Your task to perform on an android device: toggle translation in the chrome app Image 0: 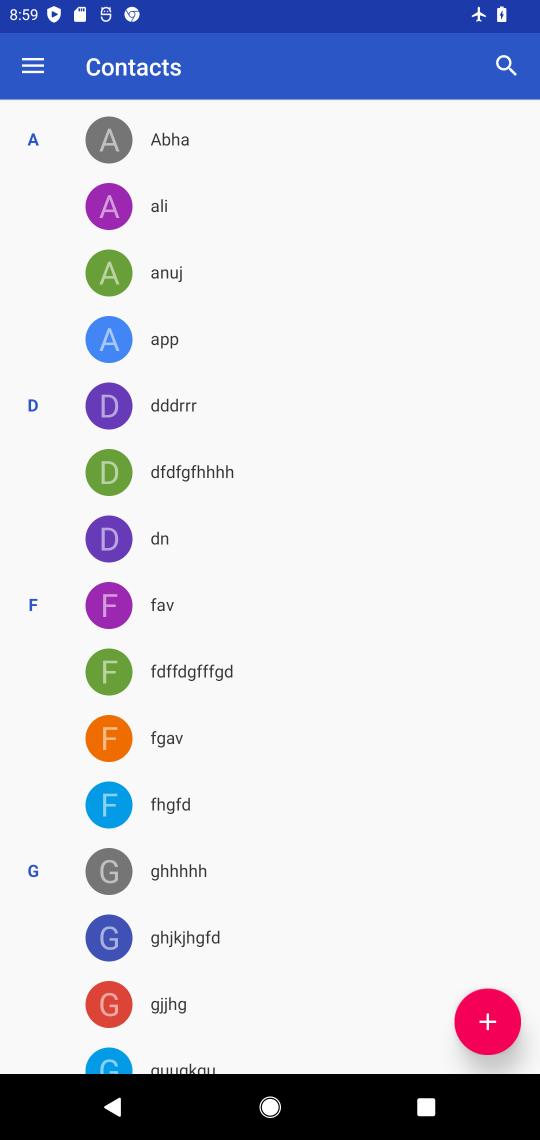
Step 0: press home button
Your task to perform on an android device: toggle translation in the chrome app Image 1: 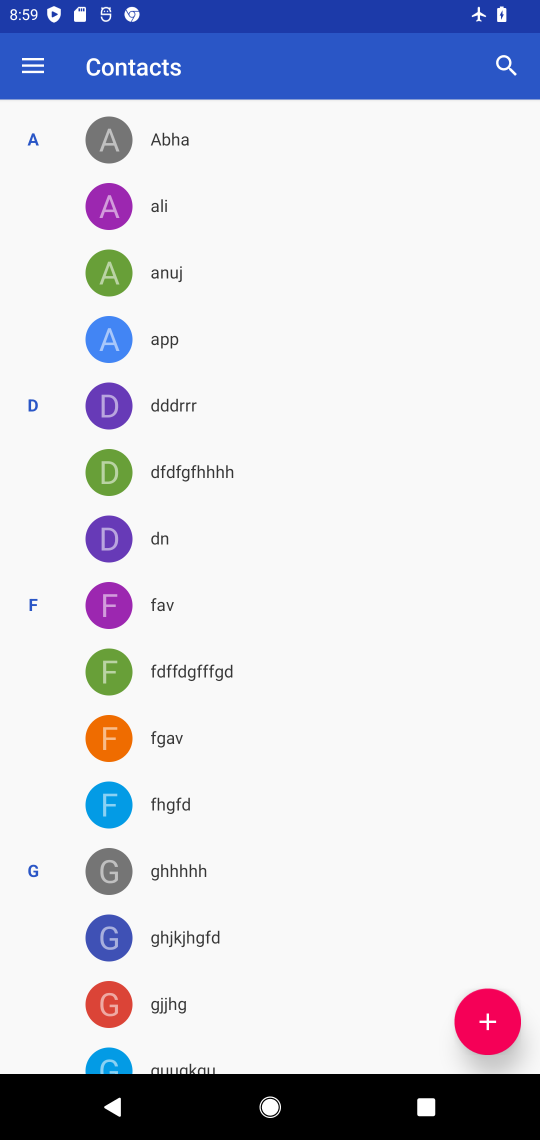
Step 1: press home button
Your task to perform on an android device: toggle translation in the chrome app Image 2: 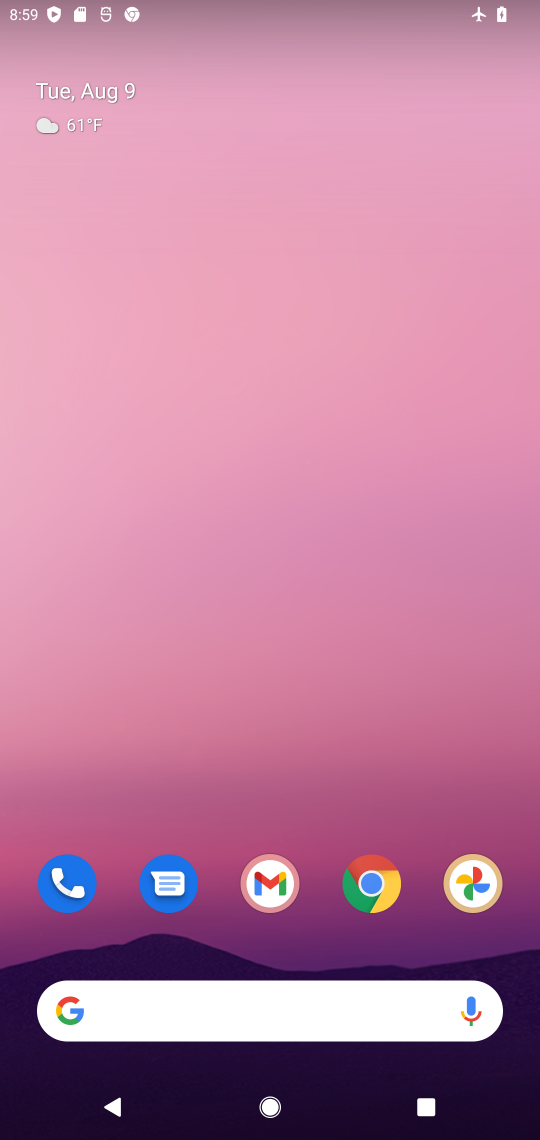
Step 2: drag from (400, 755) to (396, 217)
Your task to perform on an android device: toggle translation in the chrome app Image 3: 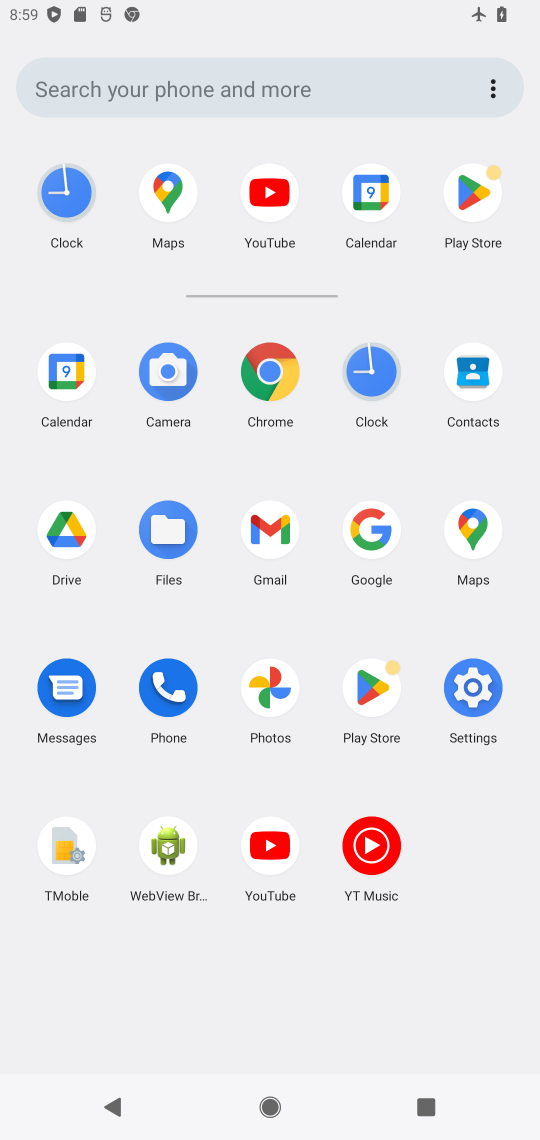
Step 3: click (270, 374)
Your task to perform on an android device: toggle translation in the chrome app Image 4: 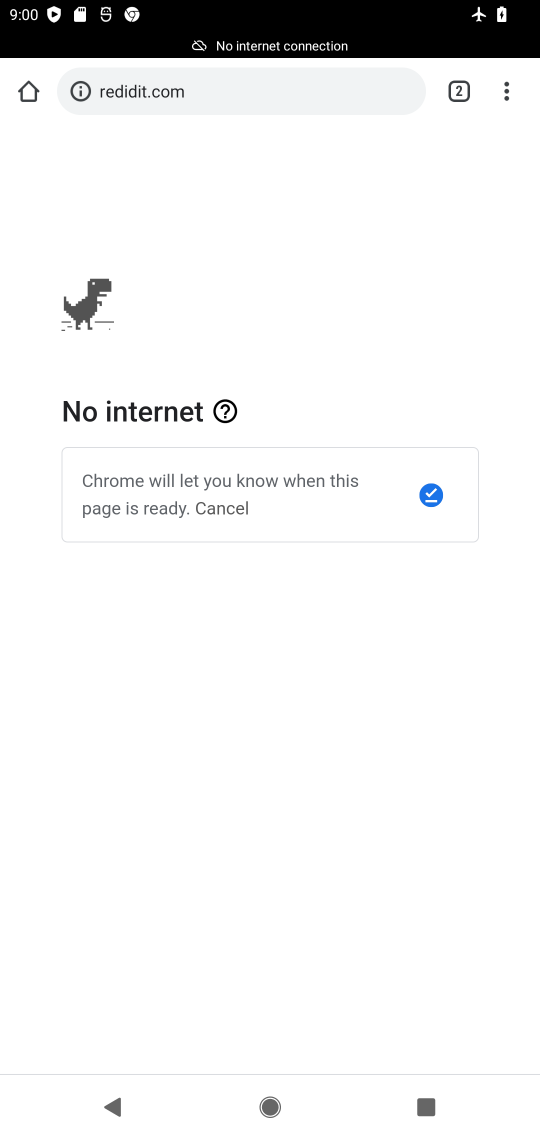
Step 4: drag from (496, 72) to (369, 842)
Your task to perform on an android device: toggle translation in the chrome app Image 5: 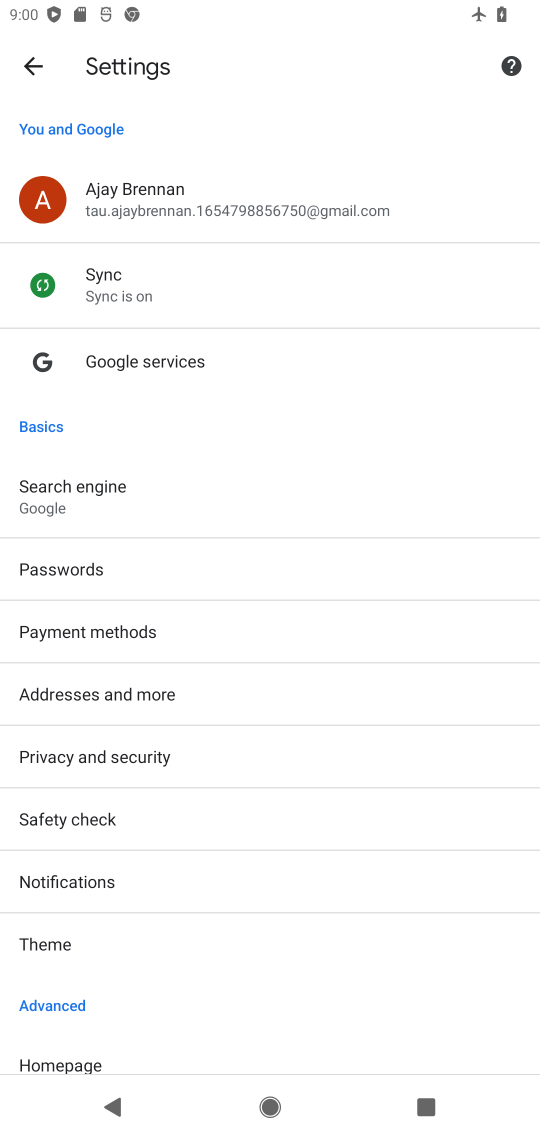
Step 5: drag from (181, 958) to (180, 408)
Your task to perform on an android device: toggle translation in the chrome app Image 6: 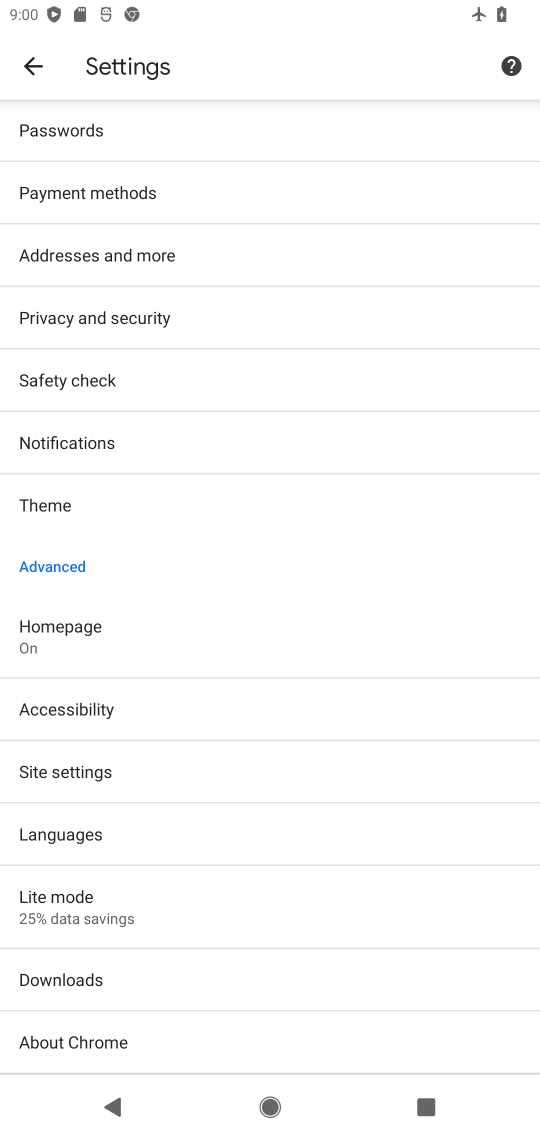
Step 6: click (91, 836)
Your task to perform on an android device: toggle translation in the chrome app Image 7: 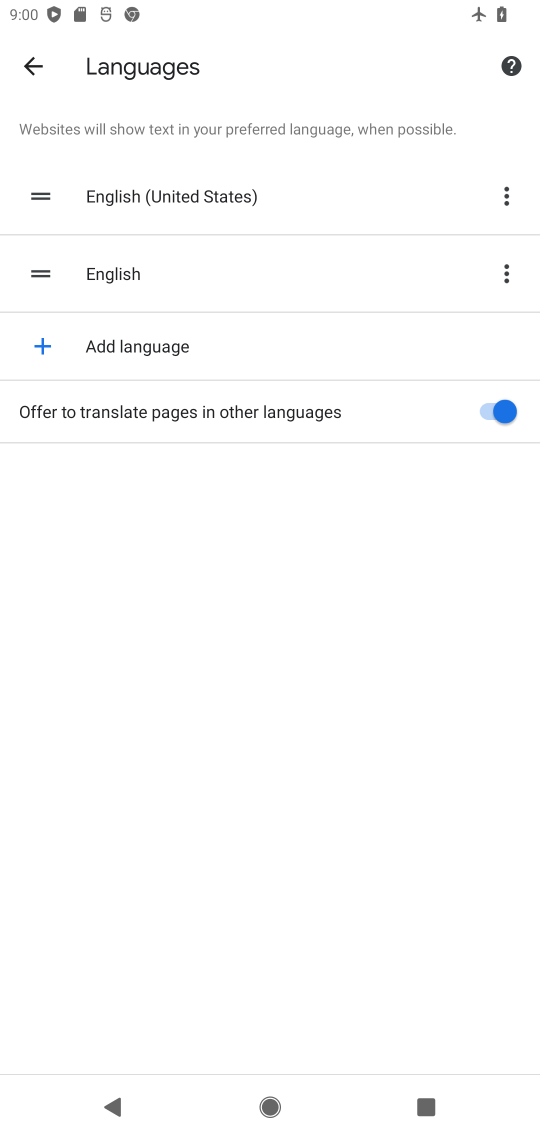
Step 7: click (493, 410)
Your task to perform on an android device: toggle translation in the chrome app Image 8: 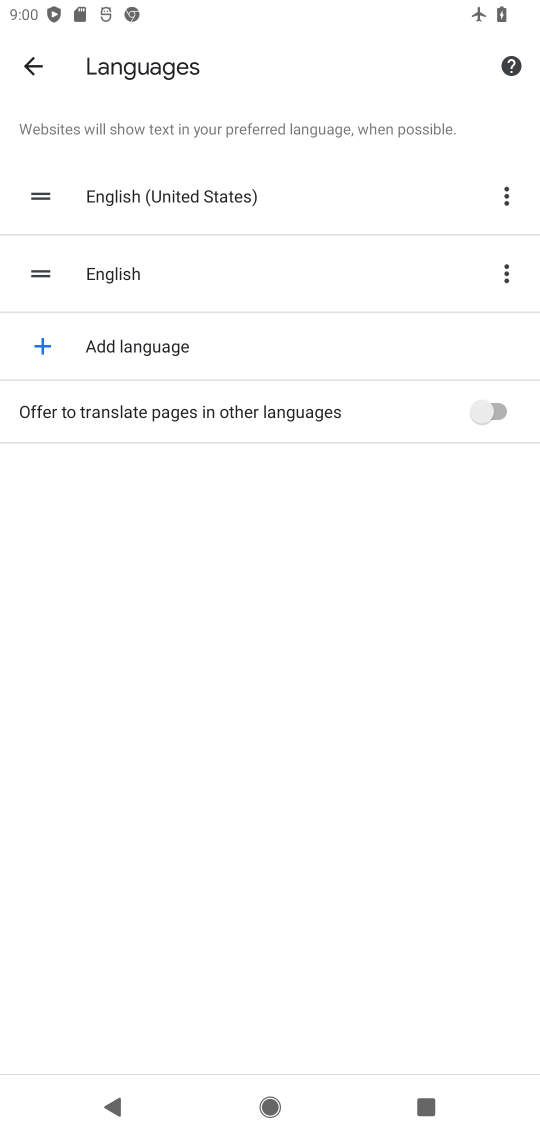
Step 8: task complete